Your task to perform on an android device: Open privacy settings Image 0: 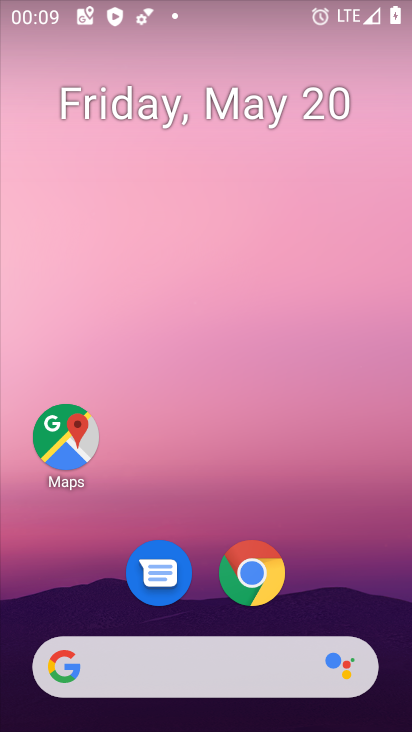
Step 0: drag from (217, 608) to (257, 176)
Your task to perform on an android device: Open privacy settings Image 1: 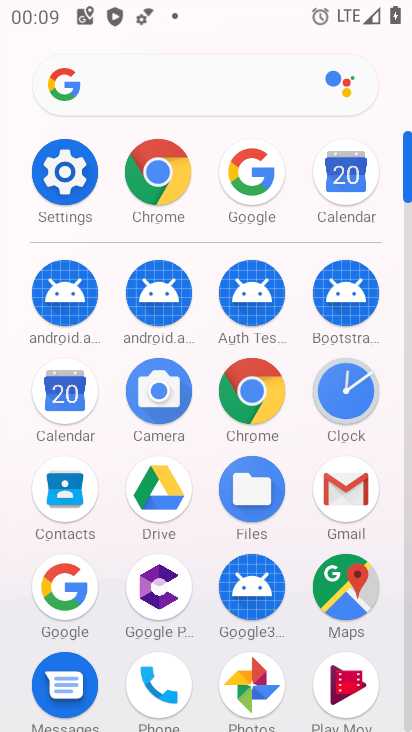
Step 1: click (79, 186)
Your task to perform on an android device: Open privacy settings Image 2: 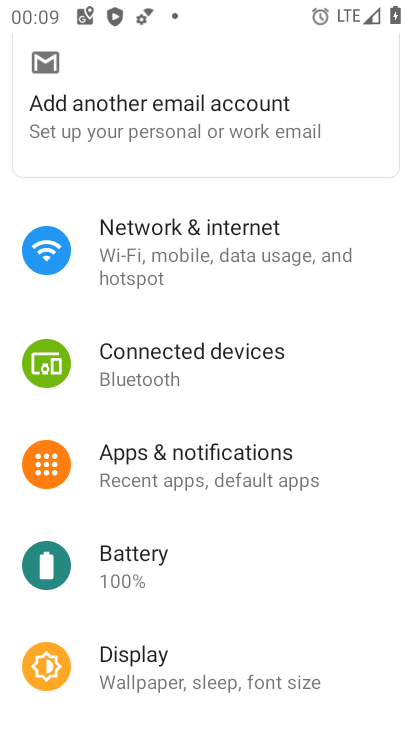
Step 2: drag from (220, 609) to (236, 321)
Your task to perform on an android device: Open privacy settings Image 3: 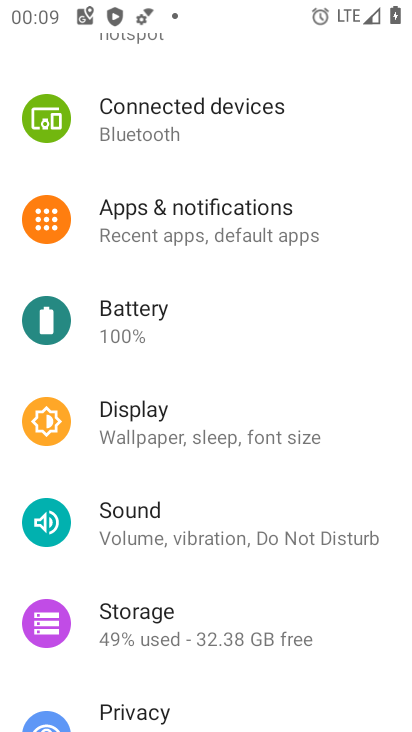
Step 3: drag from (211, 630) to (218, 376)
Your task to perform on an android device: Open privacy settings Image 4: 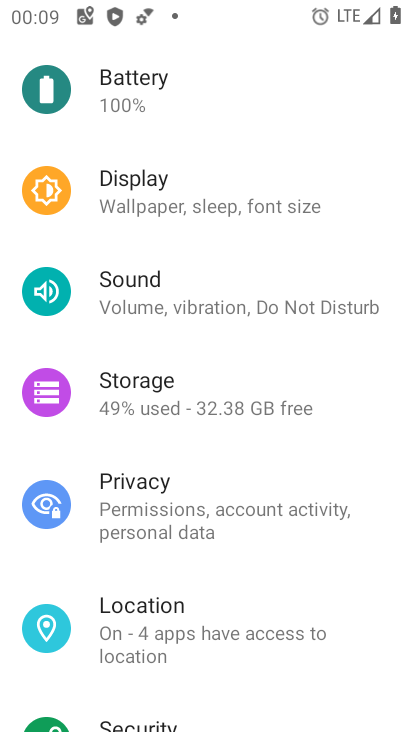
Step 4: click (167, 467)
Your task to perform on an android device: Open privacy settings Image 5: 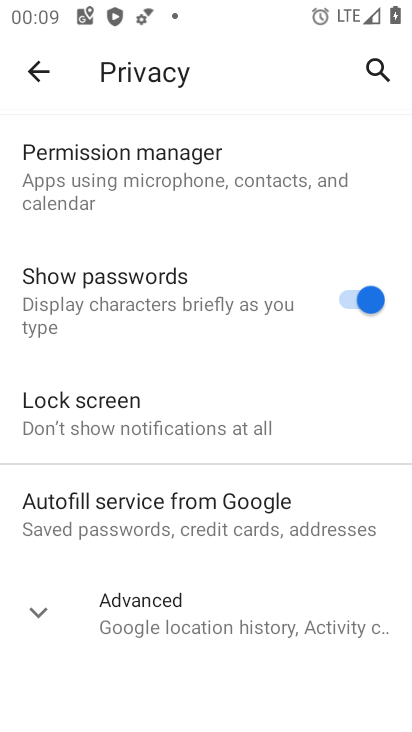
Step 5: task complete